Your task to perform on an android device: show emergency info Image 0: 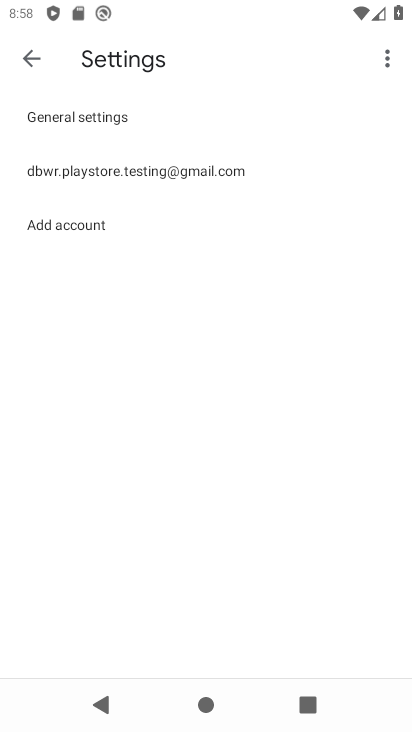
Step 0: press home button
Your task to perform on an android device: show emergency info Image 1: 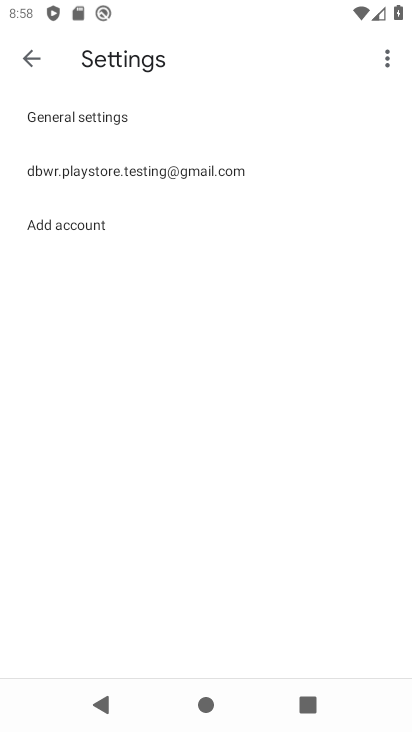
Step 1: press home button
Your task to perform on an android device: show emergency info Image 2: 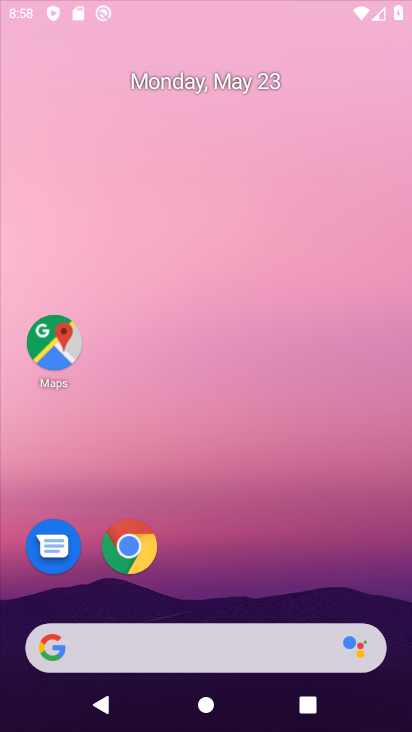
Step 2: drag from (317, 511) to (323, 62)
Your task to perform on an android device: show emergency info Image 3: 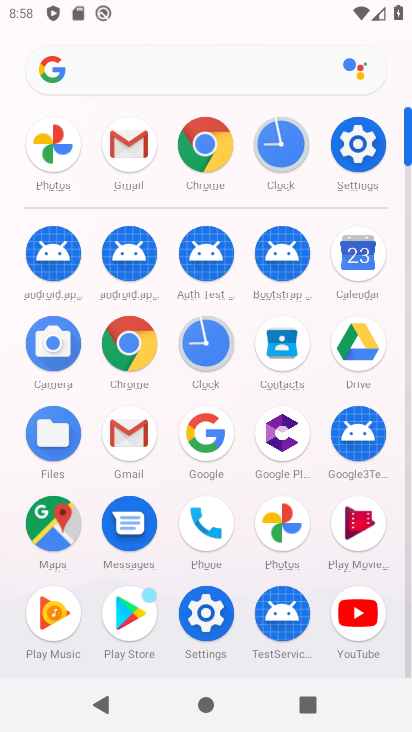
Step 3: click (350, 142)
Your task to perform on an android device: show emergency info Image 4: 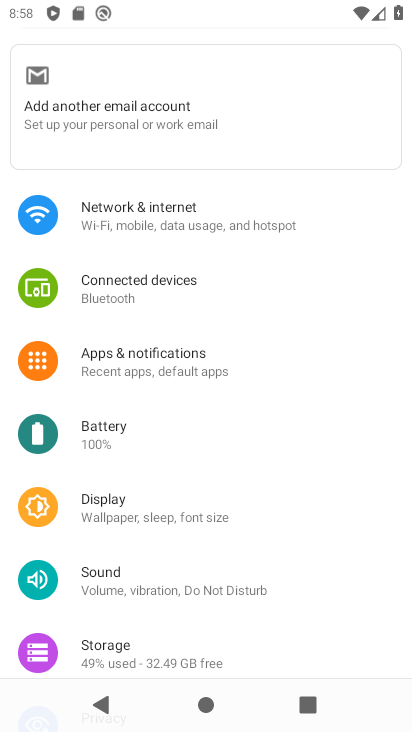
Step 4: drag from (169, 630) to (320, 121)
Your task to perform on an android device: show emergency info Image 5: 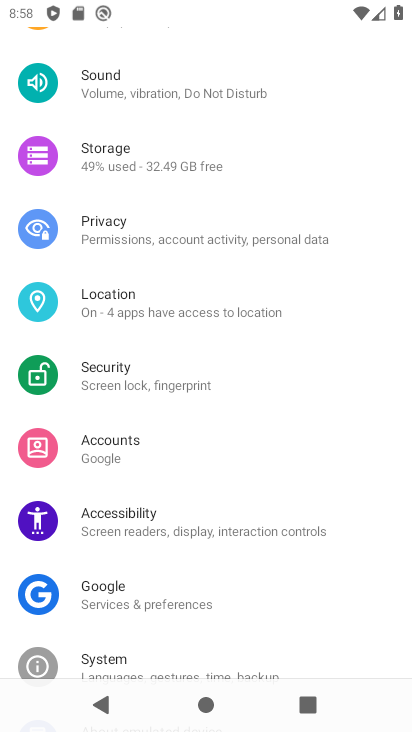
Step 5: drag from (131, 596) to (321, 148)
Your task to perform on an android device: show emergency info Image 6: 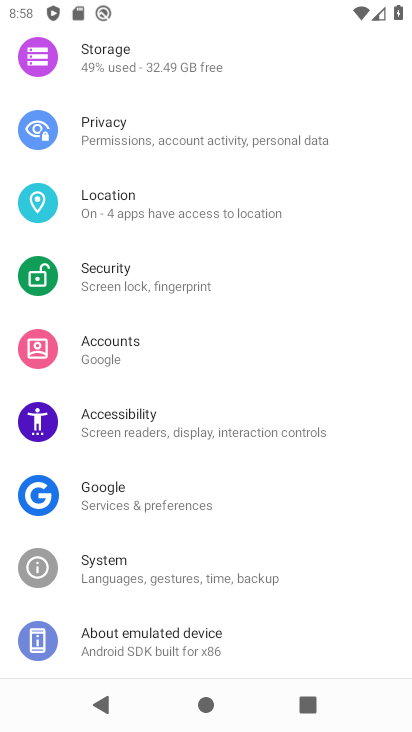
Step 6: click (193, 650)
Your task to perform on an android device: show emergency info Image 7: 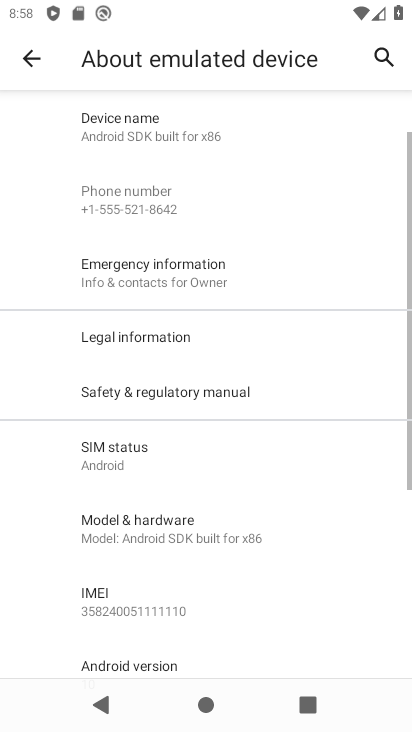
Step 7: drag from (192, 639) to (230, 509)
Your task to perform on an android device: show emergency info Image 8: 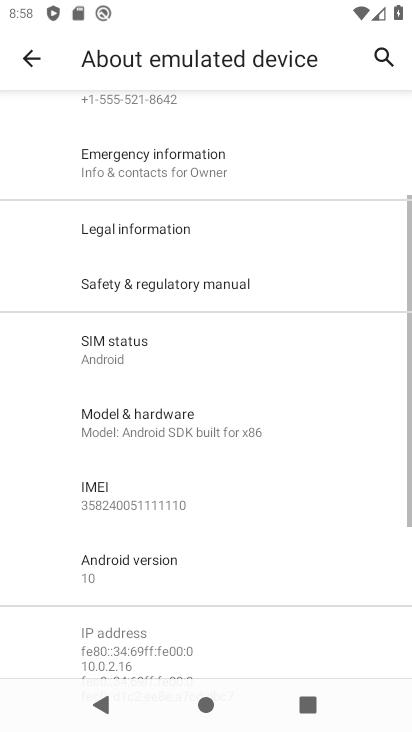
Step 8: click (153, 164)
Your task to perform on an android device: show emergency info Image 9: 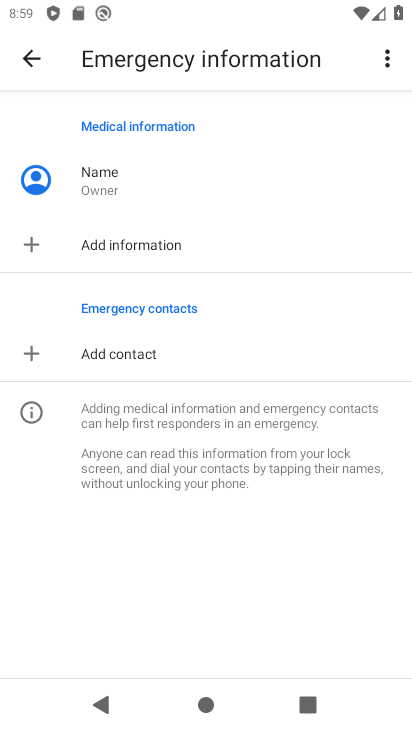
Step 9: task complete